Your task to perform on an android device: Go to settings Image 0: 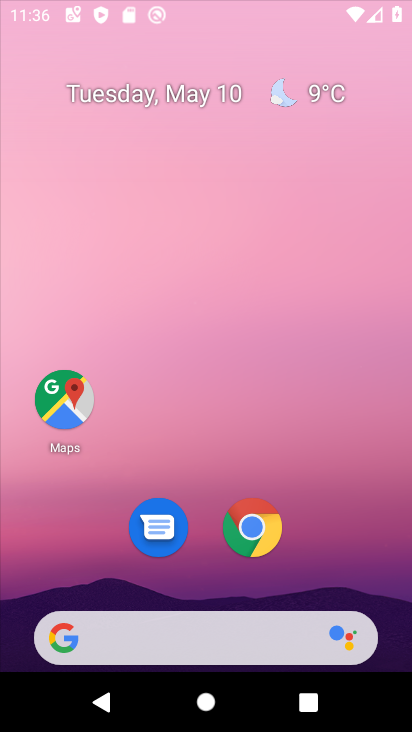
Step 0: click (225, 129)
Your task to perform on an android device: Go to settings Image 1: 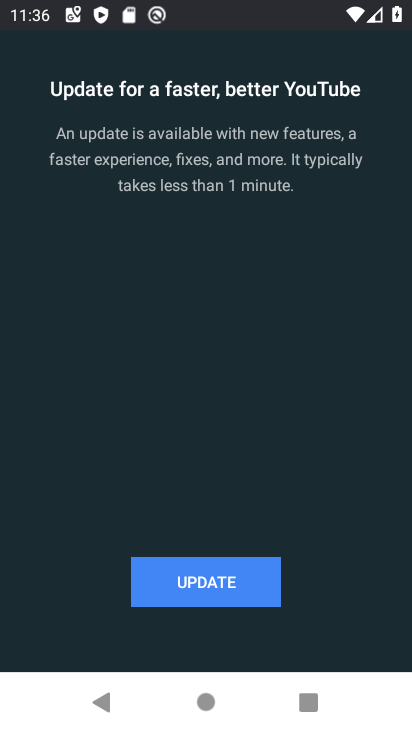
Step 1: press home button
Your task to perform on an android device: Go to settings Image 2: 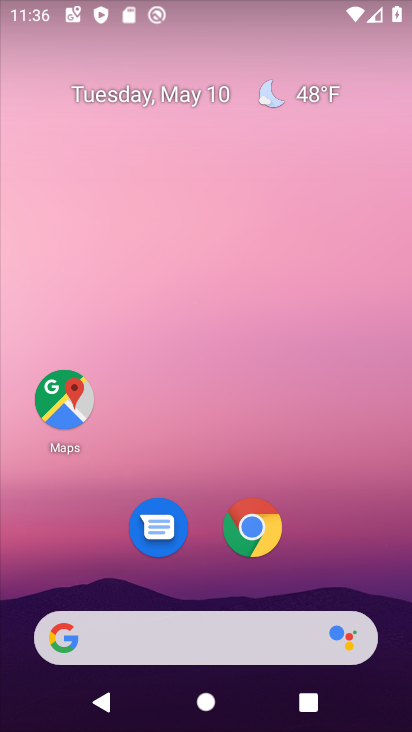
Step 2: drag from (229, 723) to (204, 186)
Your task to perform on an android device: Go to settings Image 3: 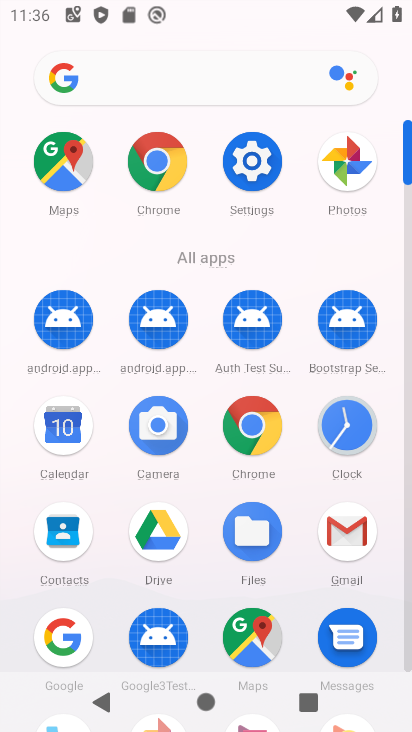
Step 3: click (249, 161)
Your task to perform on an android device: Go to settings Image 4: 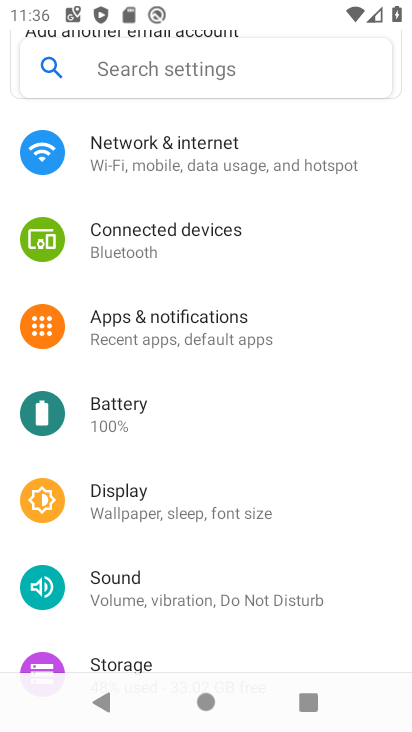
Step 4: task complete